Your task to perform on an android device: Find coffee shops on Maps Image 0: 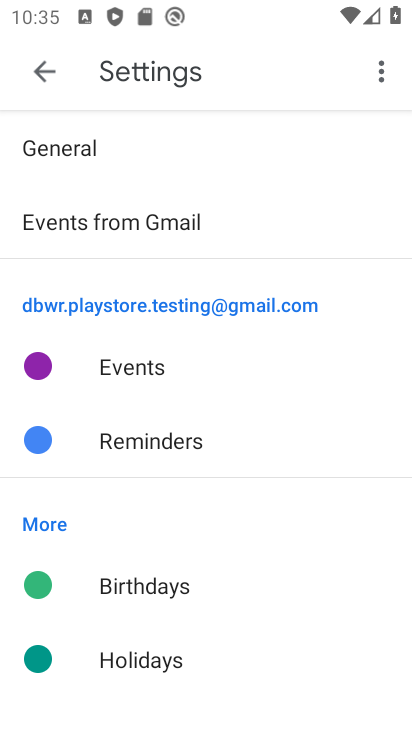
Step 0: press home button
Your task to perform on an android device: Find coffee shops on Maps Image 1: 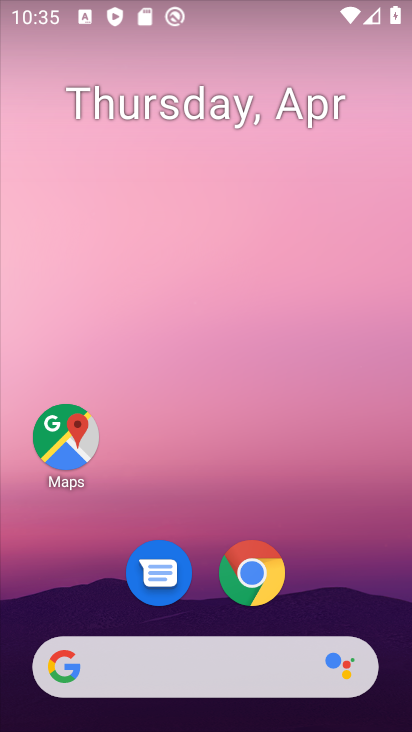
Step 1: click (77, 424)
Your task to perform on an android device: Find coffee shops on Maps Image 2: 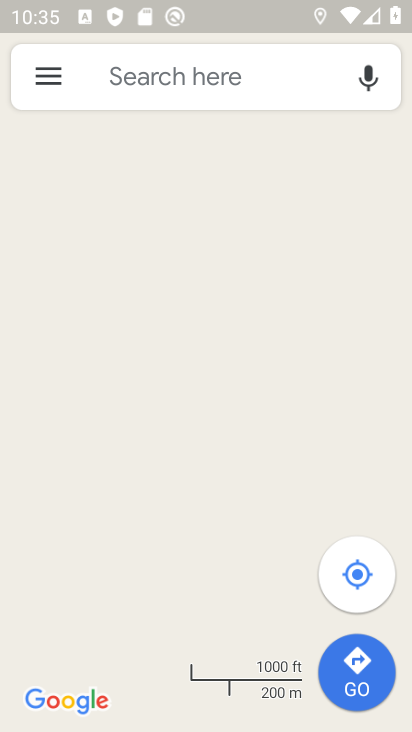
Step 2: click (173, 70)
Your task to perform on an android device: Find coffee shops on Maps Image 3: 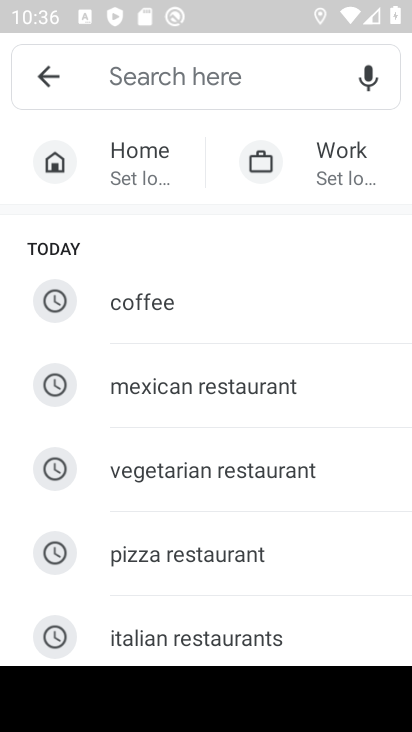
Step 3: type "coffee shops"
Your task to perform on an android device: Find coffee shops on Maps Image 4: 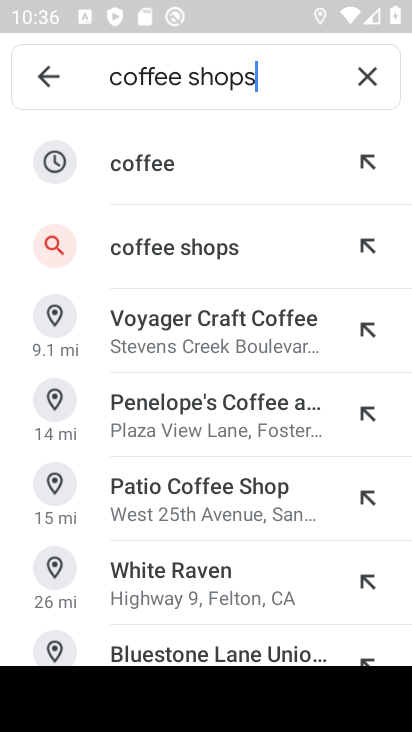
Step 4: task complete